Your task to perform on an android device: search for starred emails in the gmail app Image 0: 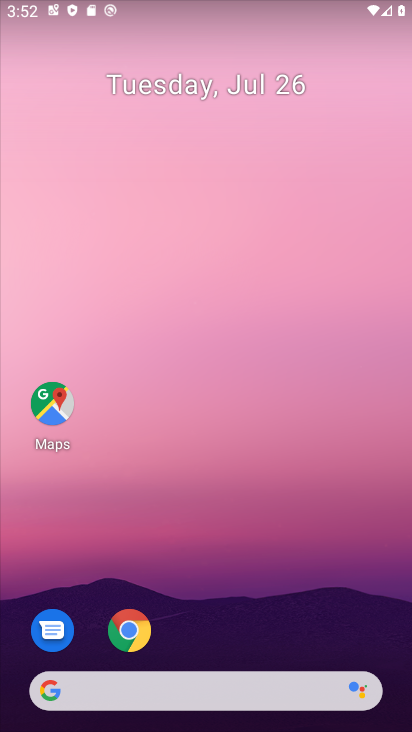
Step 0: drag from (270, 645) to (177, 89)
Your task to perform on an android device: search for starred emails in the gmail app Image 1: 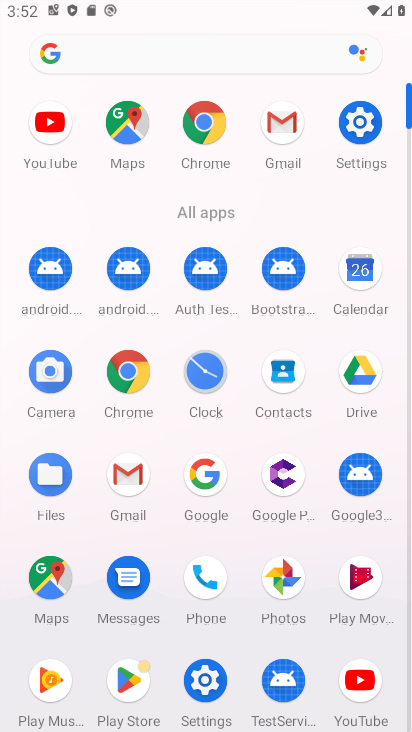
Step 1: click (291, 131)
Your task to perform on an android device: search for starred emails in the gmail app Image 2: 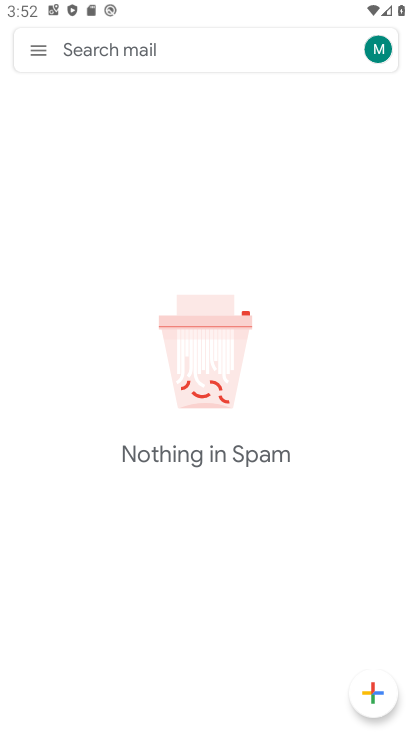
Step 2: click (39, 46)
Your task to perform on an android device: search for starred emails in the gmail app Image 3: 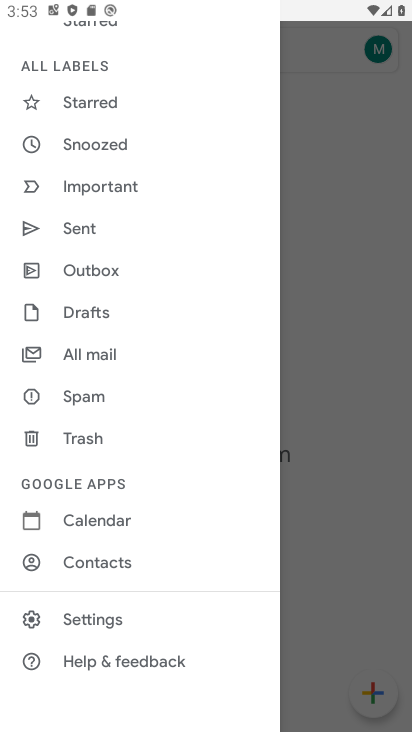
Step 3: click (120, 104)
Your task to perform on an android device: search for starred emails in the gmail app Image 4: 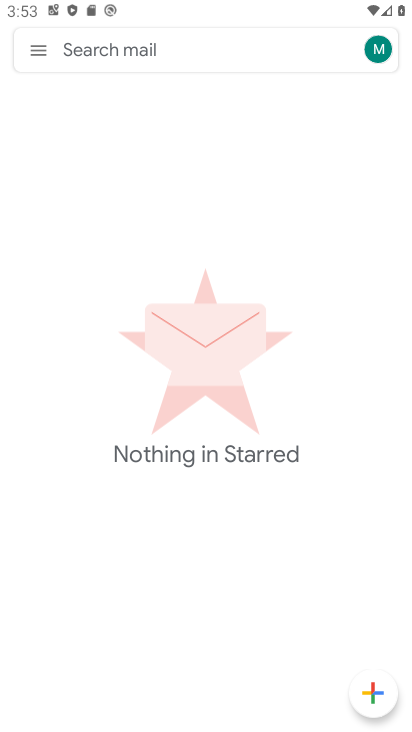
Step 4: task complete